Your task to perform on an android device: turn off smart reply in the gmail app Image 0: 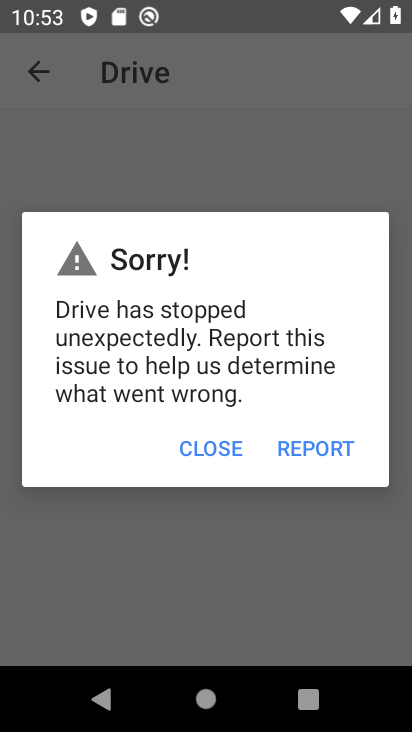
Step 0: drag from (250, 465) to (206, 145)
Your task to perform on an android device: turn off smart reply in the gmail app Image 1: 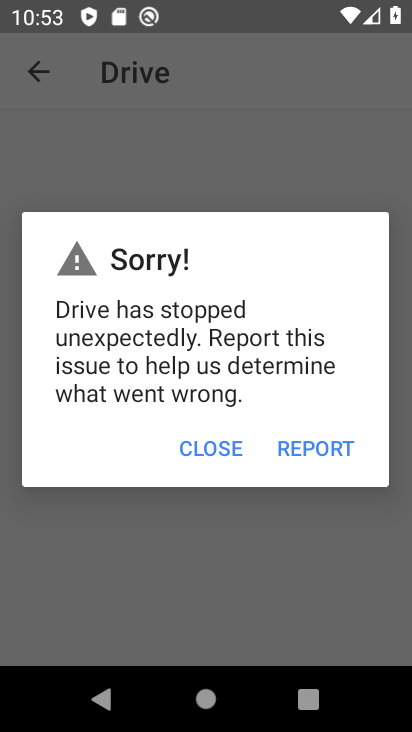
Step 1: click (212, 451)
Your task to perform on an android device: turn off smart reply in the gmail app Image 2: 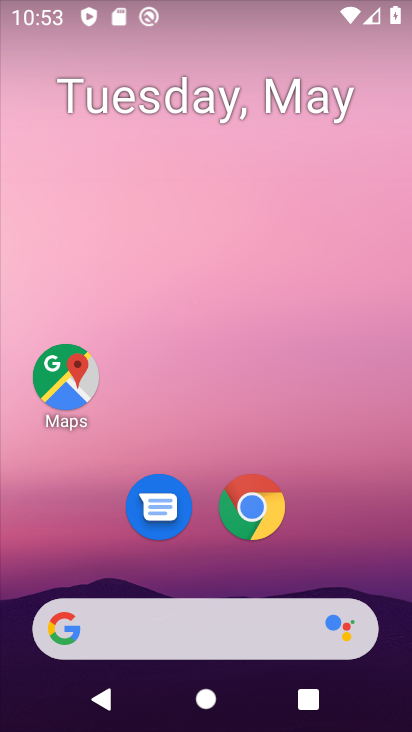
Step 2: drag from (254, 682) to (189, 75)
Your task to perform on an android device: turn off smart reply in the gmail app Image 3: 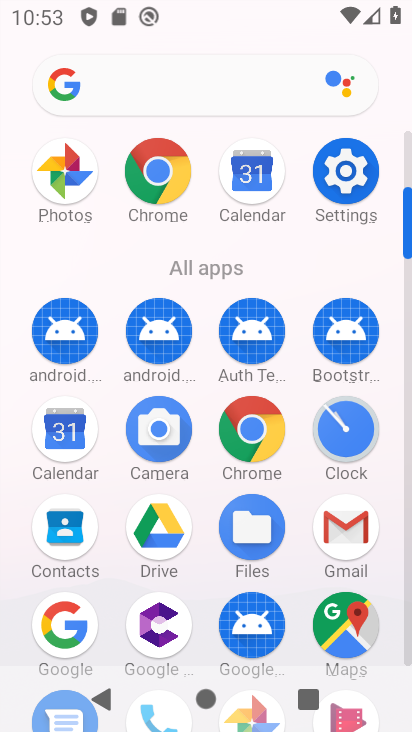
Step 3: click (345, 511)
Your task to perform on an android device: turn off smart reply in the gmail app Image 4: 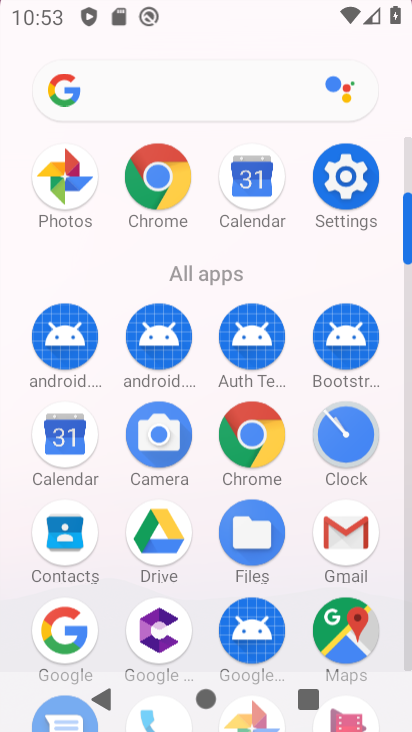
Step 4: click (348, 535)
Your task to perform on an android device: turn off smart reply in the gmail app Image 5: 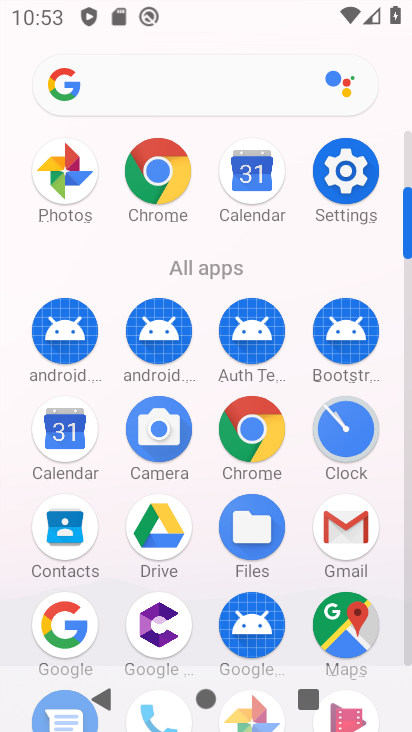
Step 5: click (342, 530)
Your task to perform on an android device: turn off smart reply in the gmail app Image 6: 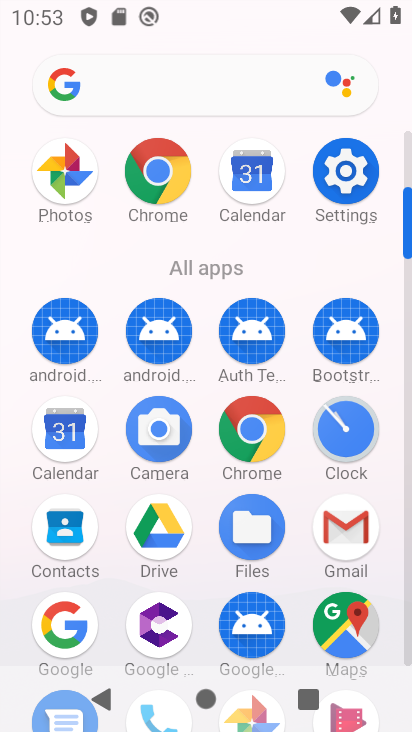
Step 6: click (341, 529)
Your task to perform on an android device: turn off smart reply in the gmail app Image 7: 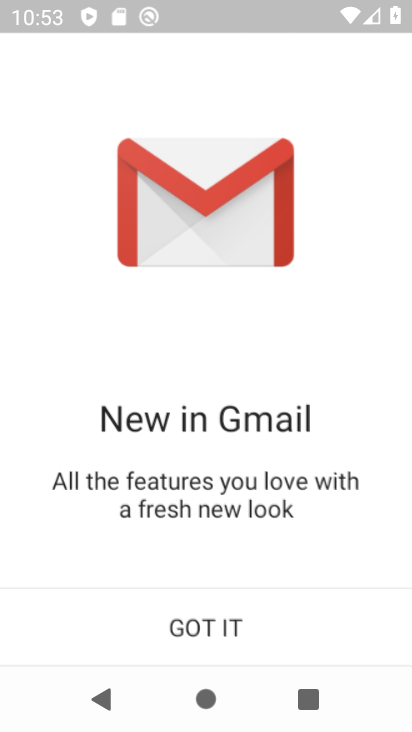
Step 7: click (341, 527)
Your task to perform on an android device: turn off smart reply in the gmail app Image 8: 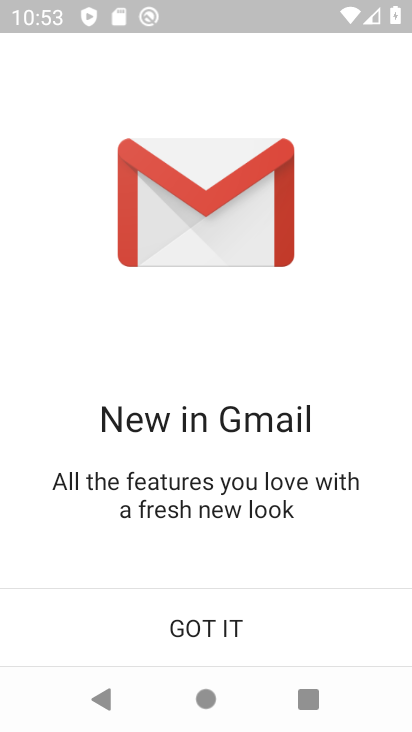
Step 8: click (225, 612)
Your task to perform on an android device: turn off smart reply in the gmail app Image 9: 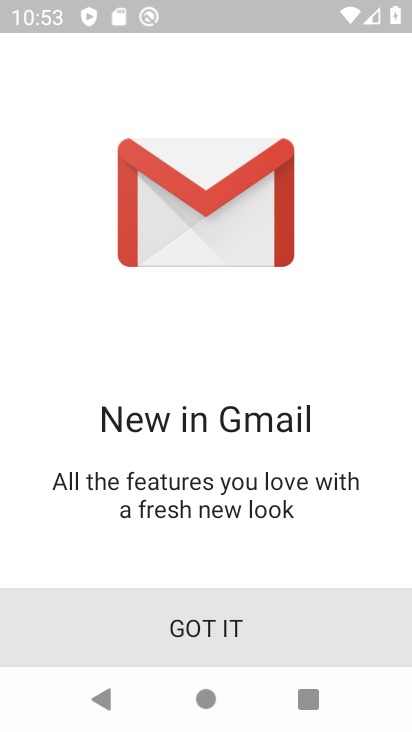
Step 9: click (224, 612)
Your task to perform on an android device: turn off smart reply in the gmail app Image 10: 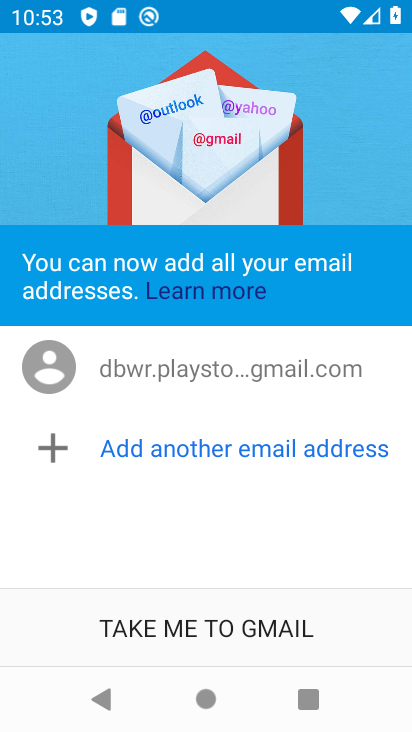
Step 10: click (222, 615)
Your task to perform on an android device: turn off smart reply in the gmail app Image 11: 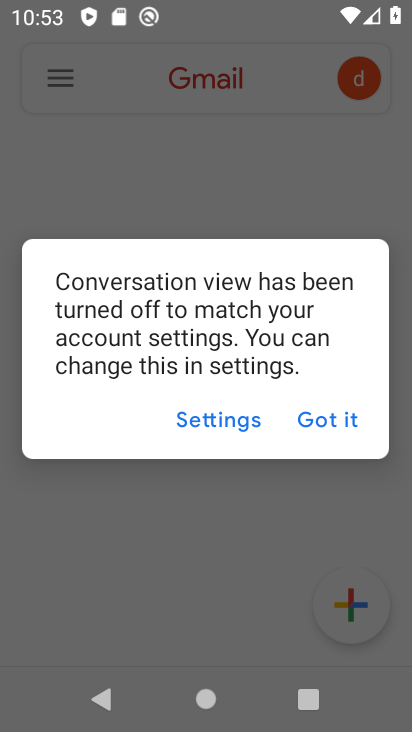
Step 11: click (328, 419)
Your task to perform on an android device: turn off smart reply in the gmail app Image 12: 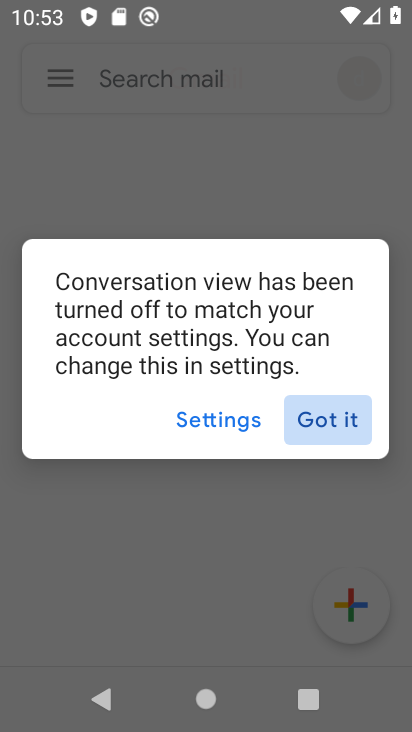
Step 12: click (330, 398)
Your task to perform on an android device: turn off smart reply in the gmail app Image 13: 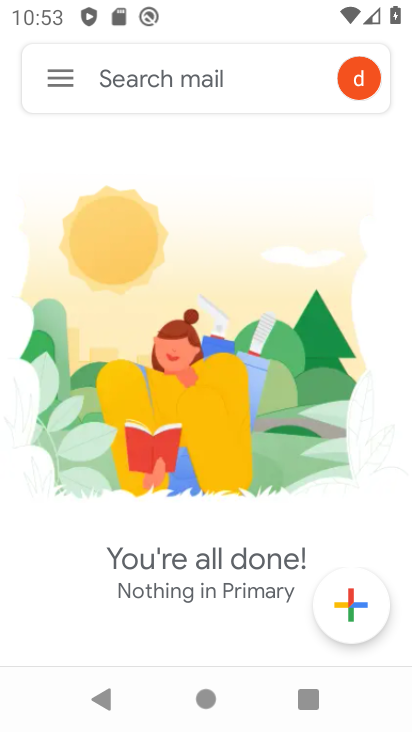
Step 13: click (51, 84)
Your task to perform on an android device: turn off smart reply in the gmail app Image 14: 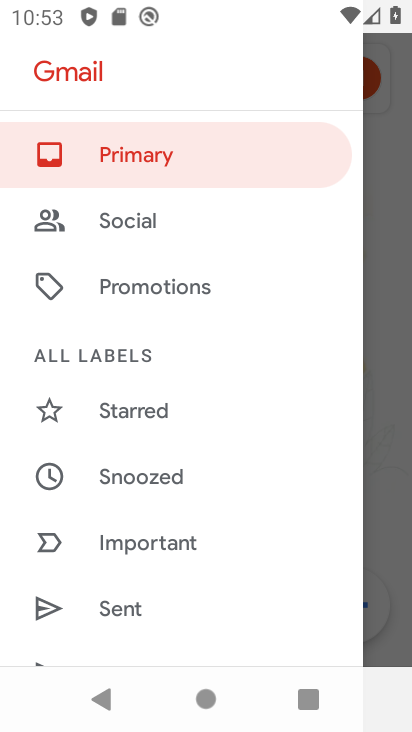
Step 14: drag from (147, 607) to (142, 187)
Your task to perform on an android device: turn off smart reply in the gmail app Image 15: 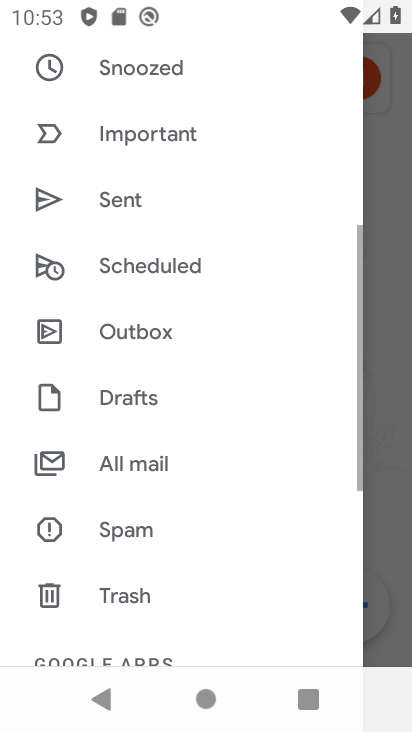
Step 15: drag from (177, 484) to (177, 198)
Your task to perform on an android device: turn off smart reply in the gmail app Image 16: 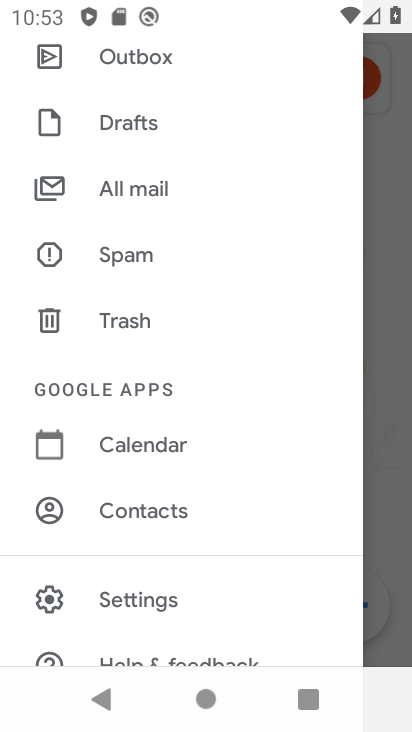
Step 16: click (150, 600)
Your task to perform on an android device: turn off smart reply in the gmail app Image 17: 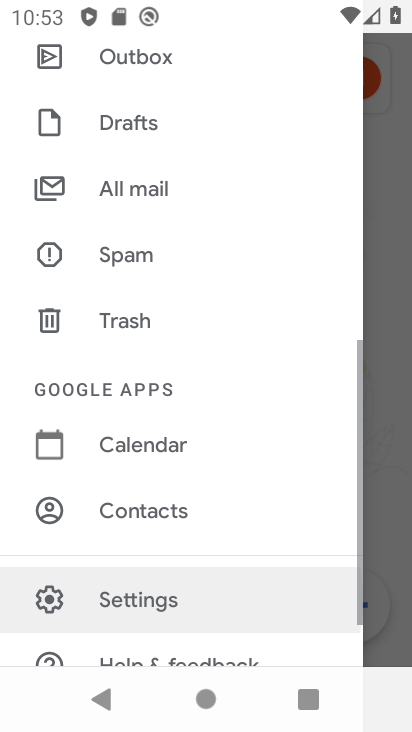
Step 17: click (149, 600)
Your task to perform on an android device: turn off smart reply in the gmail app Image 18: 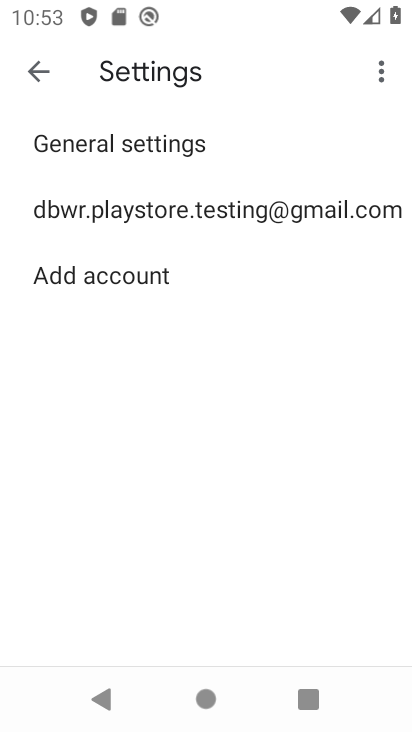
Step 18: click (174, 198)
Your task to perform on an android device: turn off smart reply in the gmail app Image 19: 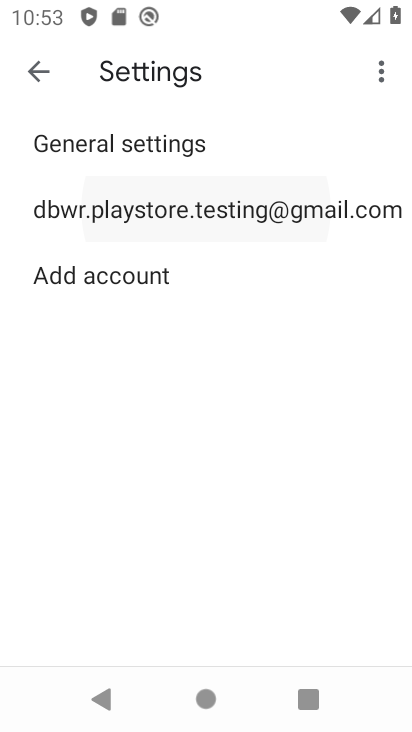
Step 19: click (175, 195)
Your task to perform on an android device: turn off smart reply in the gmail app Image 20: 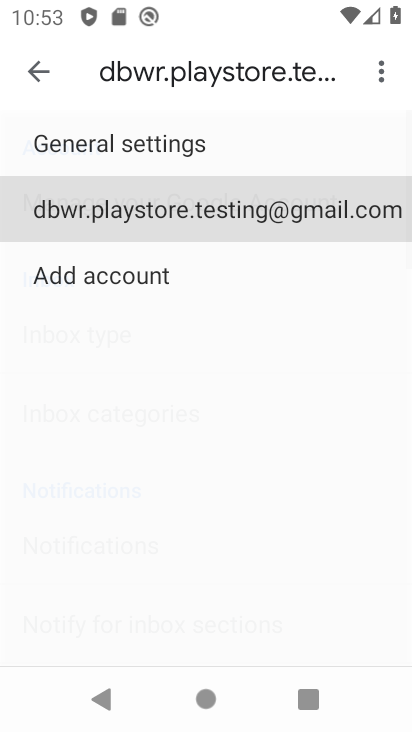
Step 20: click (175, 195)
Your task to perform on an android device: turn off smart reply in the gmail app Image 21: 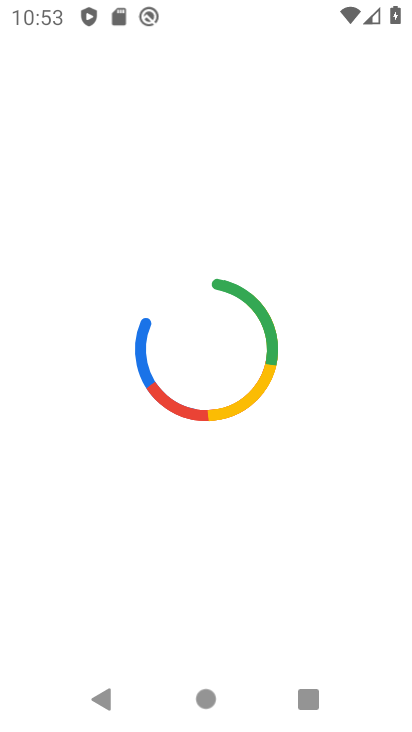
Step 21: drag from (167, 526) to (146, 188)
Your task to perform on an android device: turn off smart reply in the gmail app Image 22: 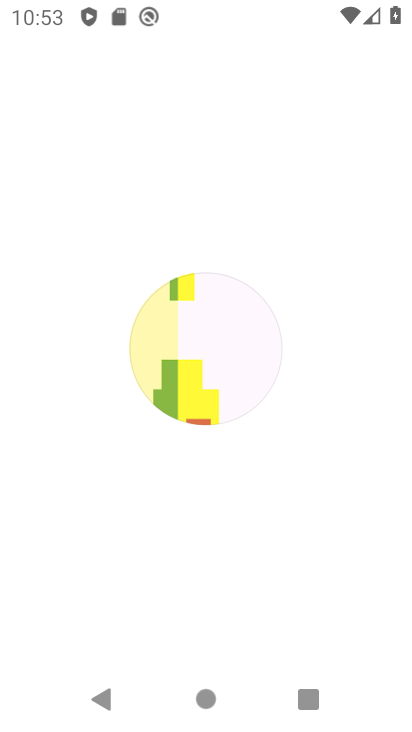
Step 22: press back button
Your task to perform on an android device: turn off smart reply in the gmail app Image 23: 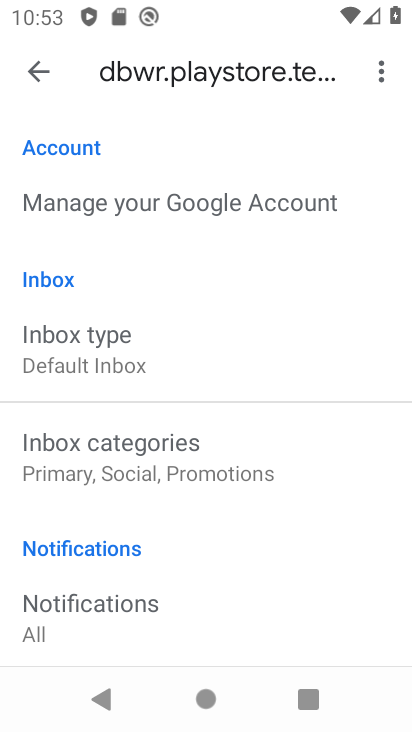
Step 23: drag from (84, 550) to (120, 320)
Your task to perform on an android device: turn off smart reply in the gmail app Image 24: 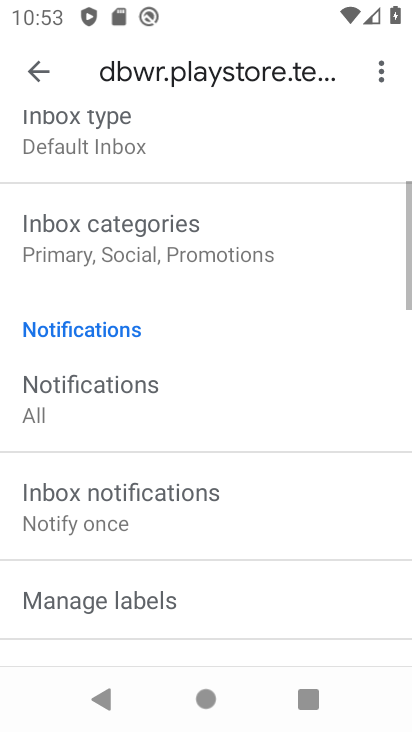
Step 24: drag from (166, 577) to (152, 167)
Your task to perform on an android device: turn off smart reply in the gmail app Image 25: 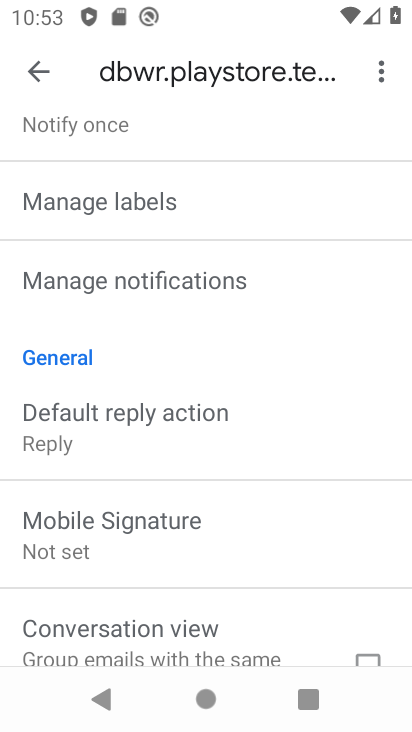
Step 25: drag from (123, 477) to (124, 175)
Your task to perform on an android device: turn off smart reply in the gmail app Image 26: 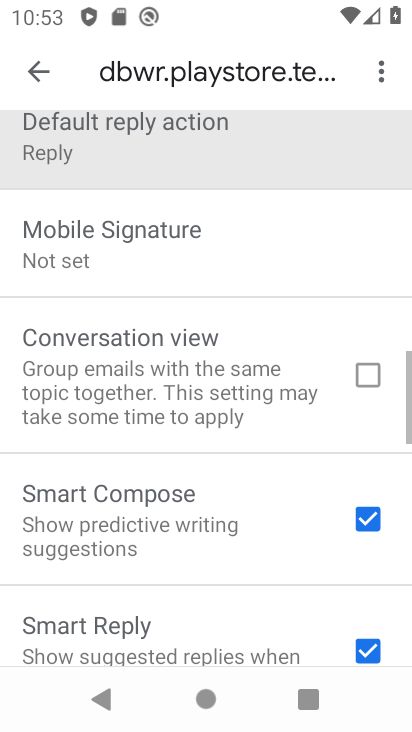
Step 26: drag from (137, 397) to (137, 177)
Your task to perform on an android device: turn off smart reply in the gmail app Image 27: 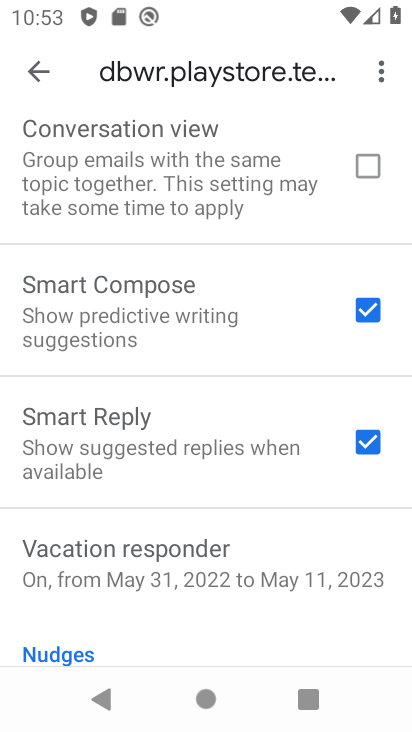
Step 27: click (367, 438)
Your task to perform on an android device: turn off smart reply in the gmail app Image 28: 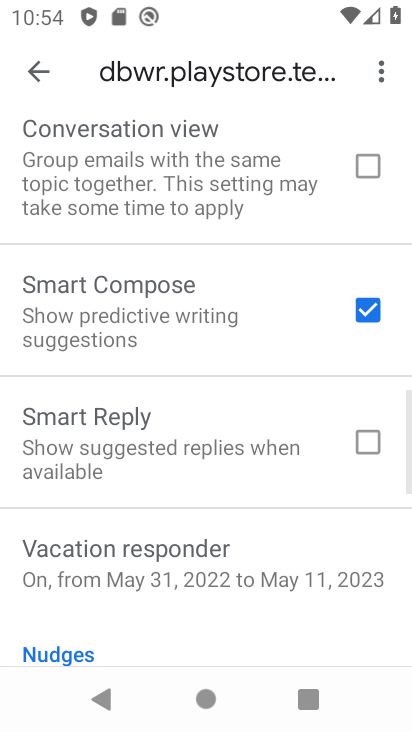
Step 28: task complete